Your task to perform on an android device: Show me the best 1080p monitor on Target.com Image 0: 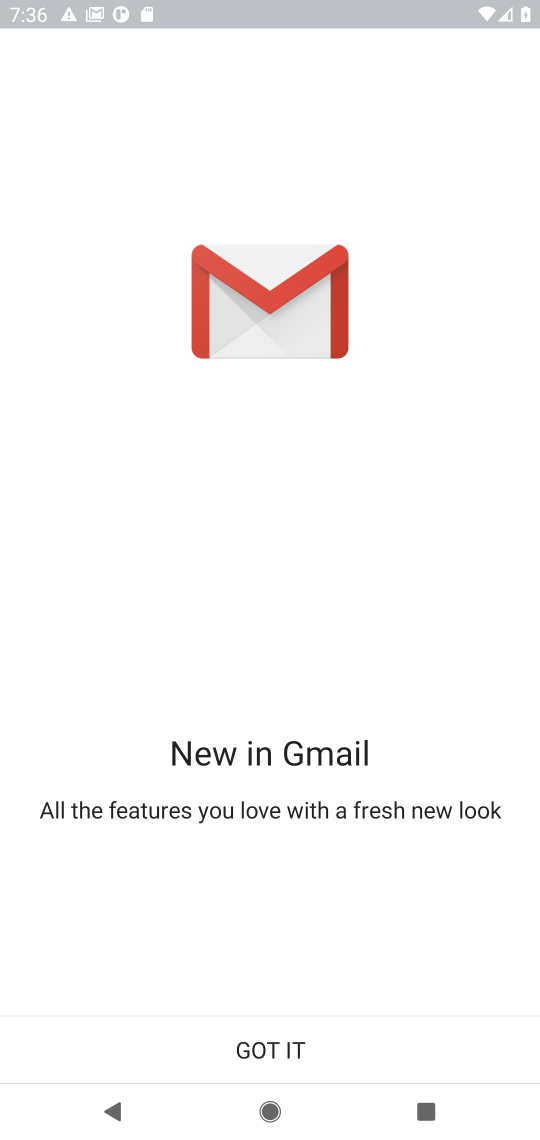
Step 0: click (306, 1052)
Your task to perform on an android device: Show me the best 1080p monitor on Target.com Image 1: 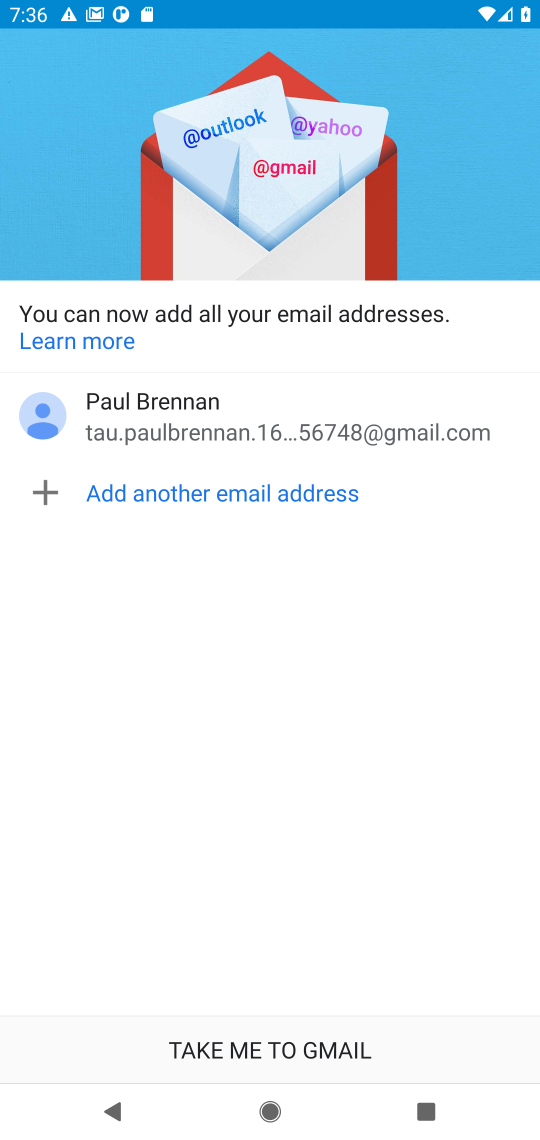
Step 1: click (306, 1052)
Your task to perform on an android device: Show me the best 1080p monitor on Target.com Image 2: 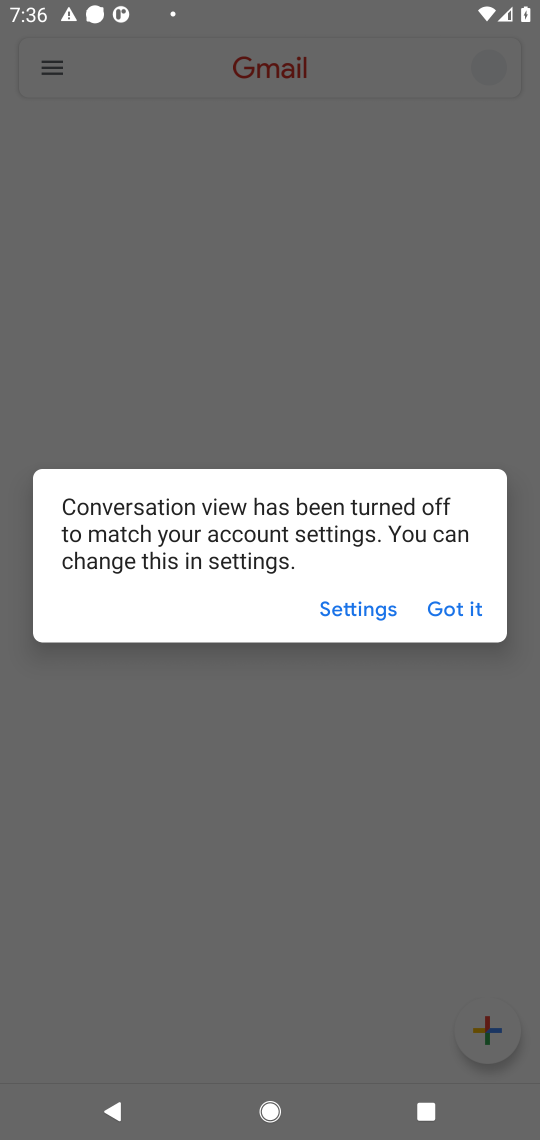
Step 2: task complete